Your task to perform on an android device: Go to internet settings Image 0: 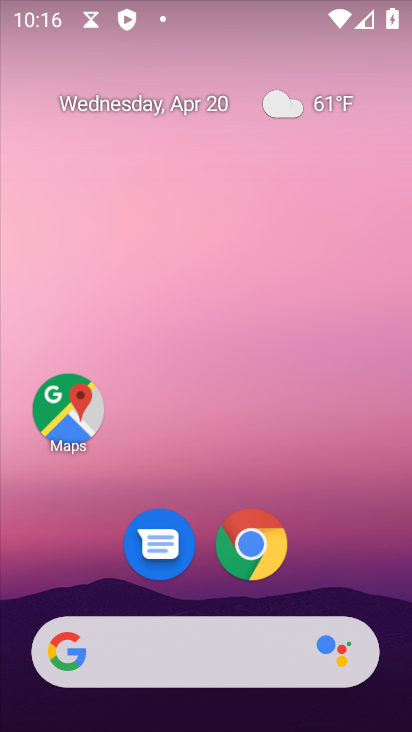
Step 0: drag from (185, 647) to (337, 57)
Your task to perform on an android device: Go to internet settings Image 1: 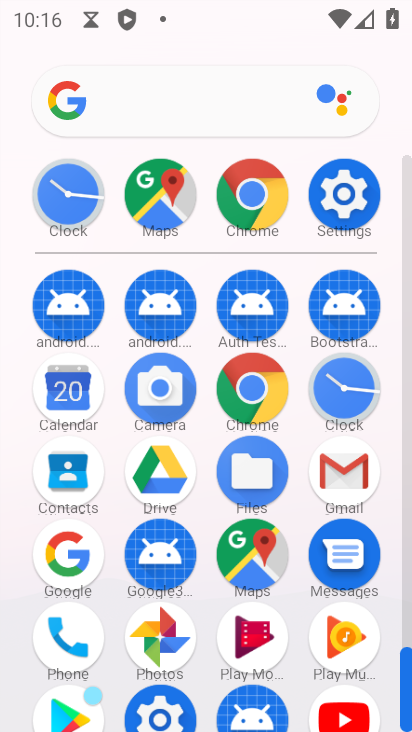
Step 1: click (344, 204)
Your task to perform on an android device: Go to internet settings Image 2: 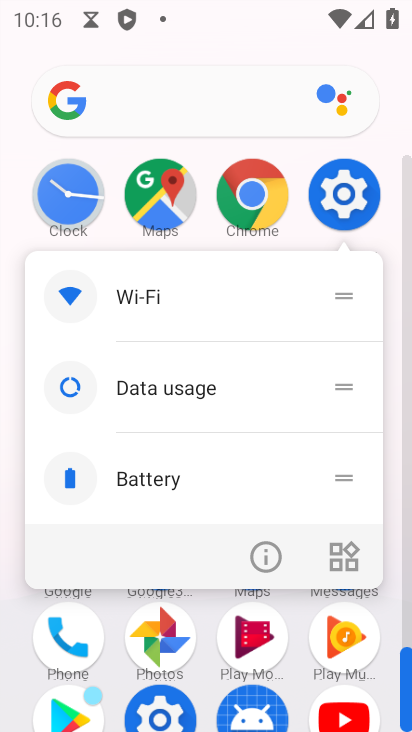
Step 2: click (344, 202)
Your task to perform on an android device: Go to internet settings Image 3: 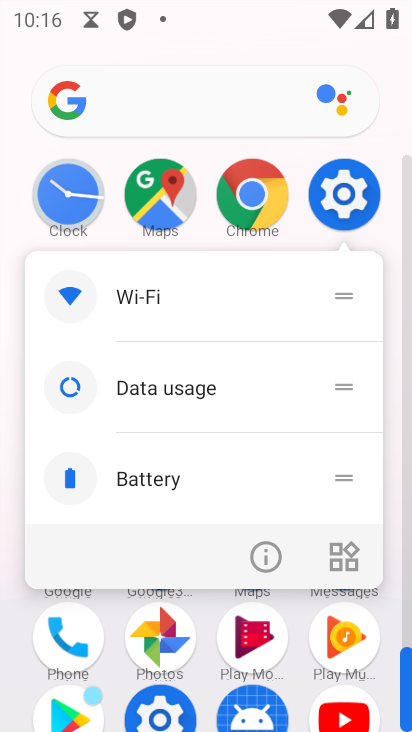
Step 3: click (344, 193)
Your task to perform on an android device: Go to internet settings Image 4: 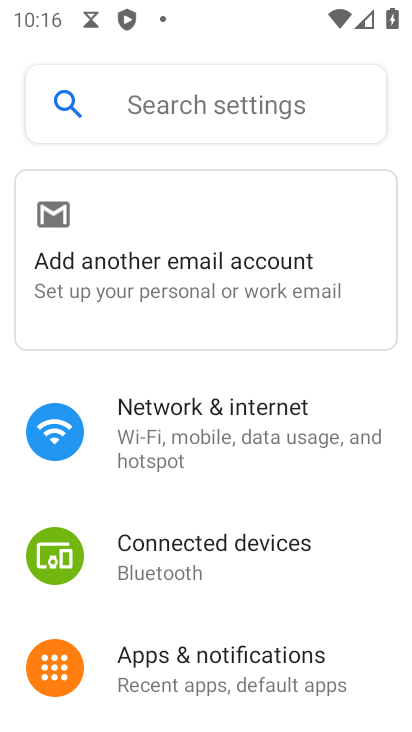
Step 4: click (236, 412)
Your task to perform on an android device: Go to internet settings Image 5: 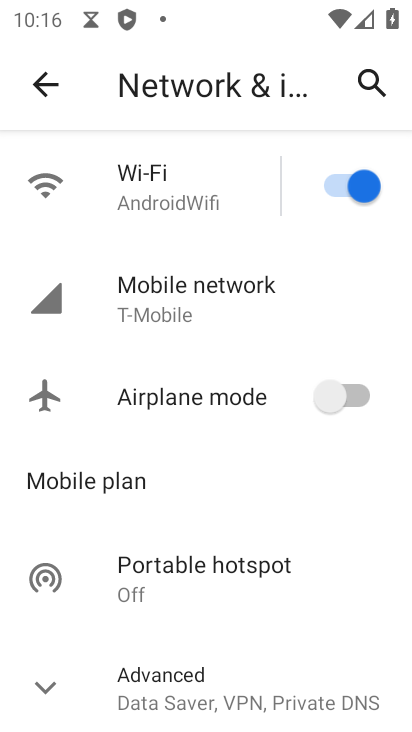
Step 5: task complete